Your task to perform on an android device: Open Reddit.com Image 0: 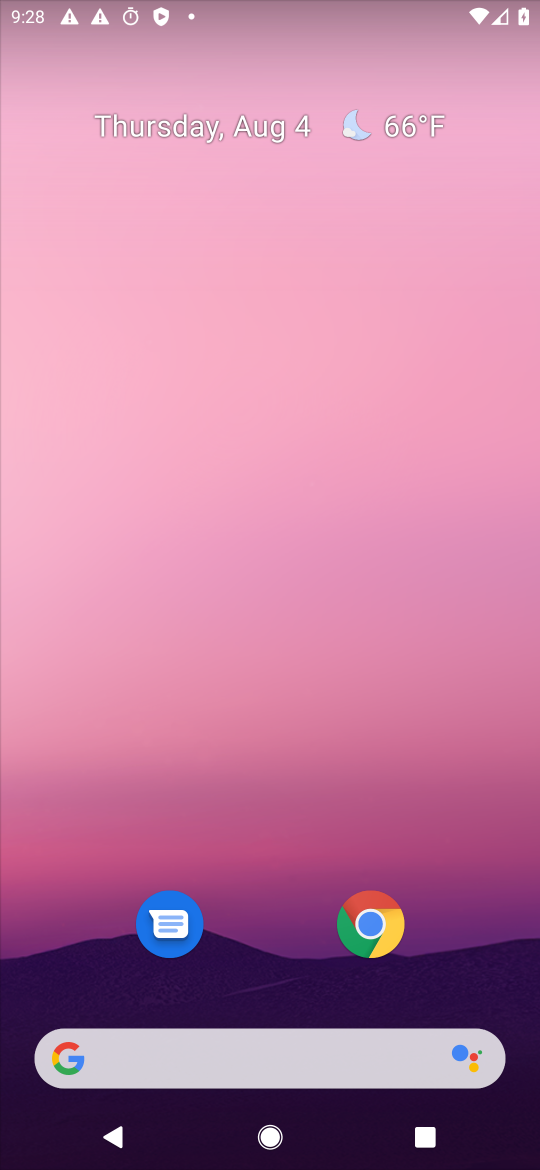
Step 0: click (359, 190)
Your task to perform on an android device: Open Reddit.com Image 1: 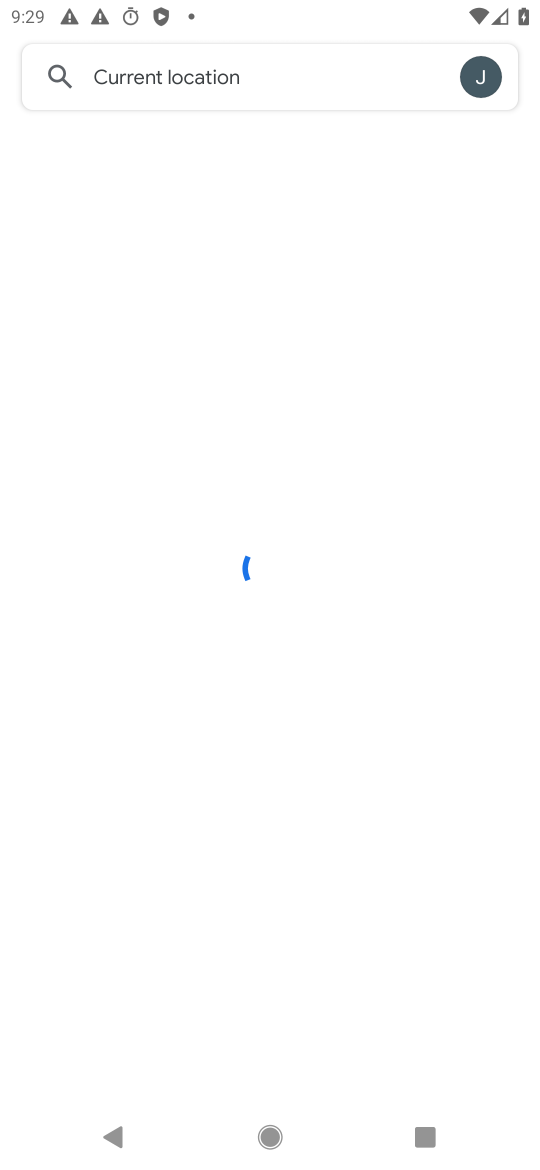
Step 1: press home button
Your task to perform on an android device: Open Reddit.com Image 2: 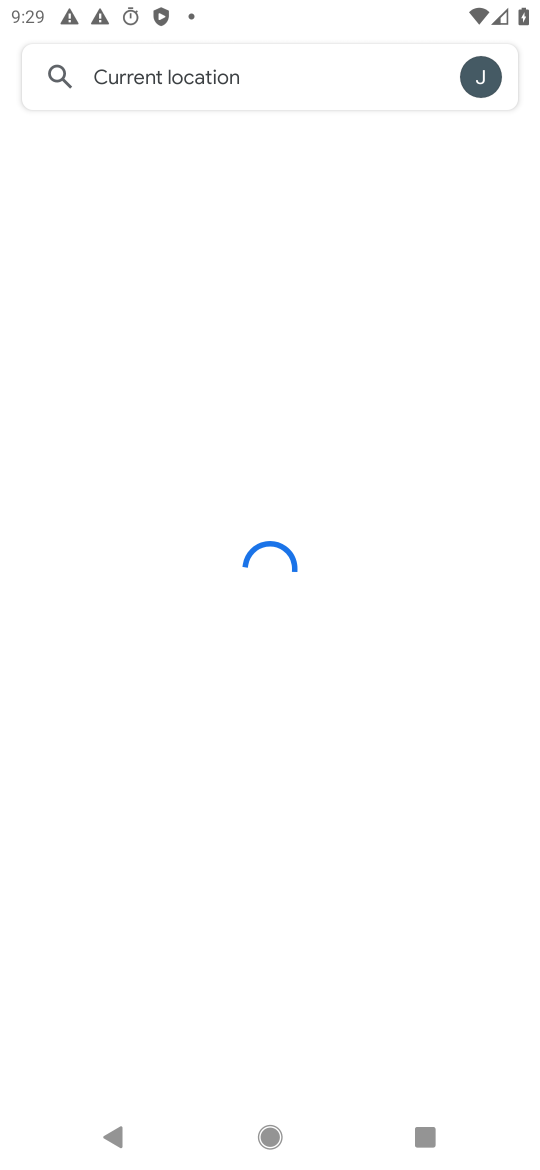
Step 2: click (254, 322)
Your task to perform on an android device: Open Reddit.com Image 3: 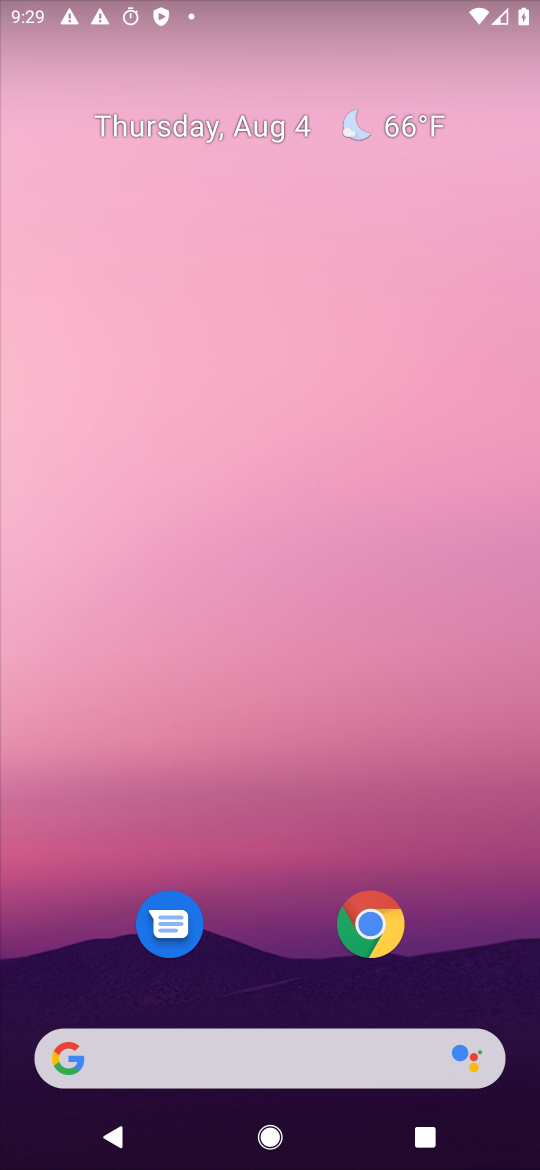
Step 3: drag from (243, 994) to (321, 248)
Your task to perform on an android device: Open Reddit.com Image 4: 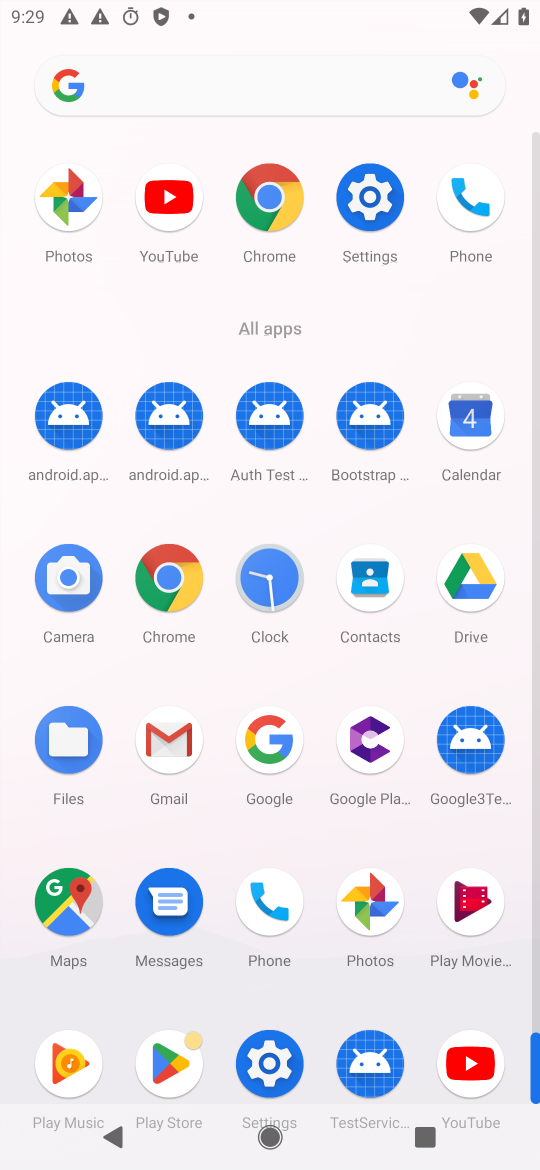
Step 4: click (228, 77)
Your task to perform on an android device: Open Reddit.com Image 5: 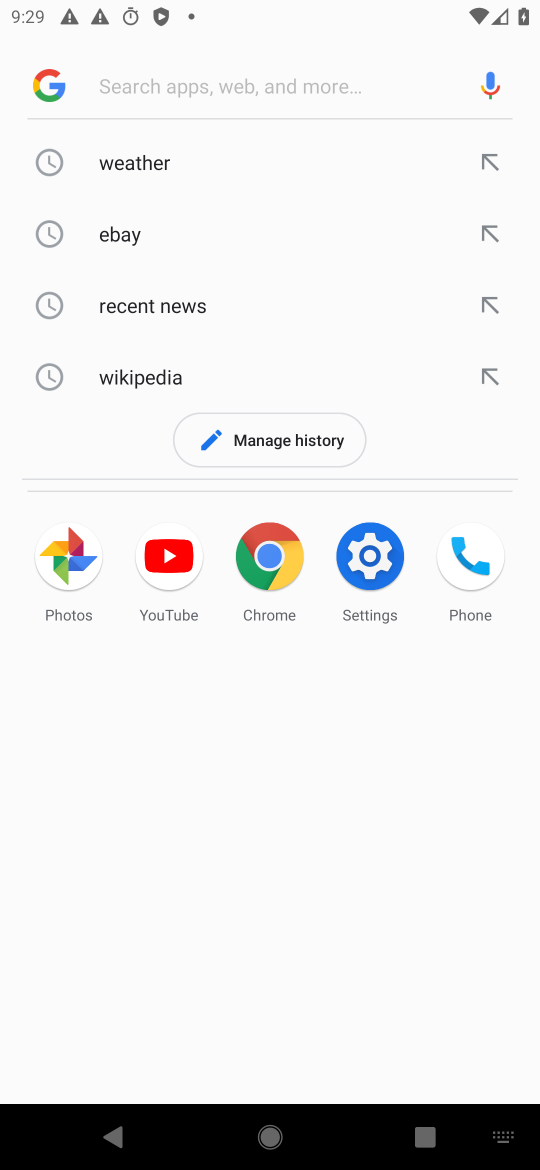
Step 5: type "Reddit.com"
Your task to perform on an android device: Open Reddit.com Image 6: 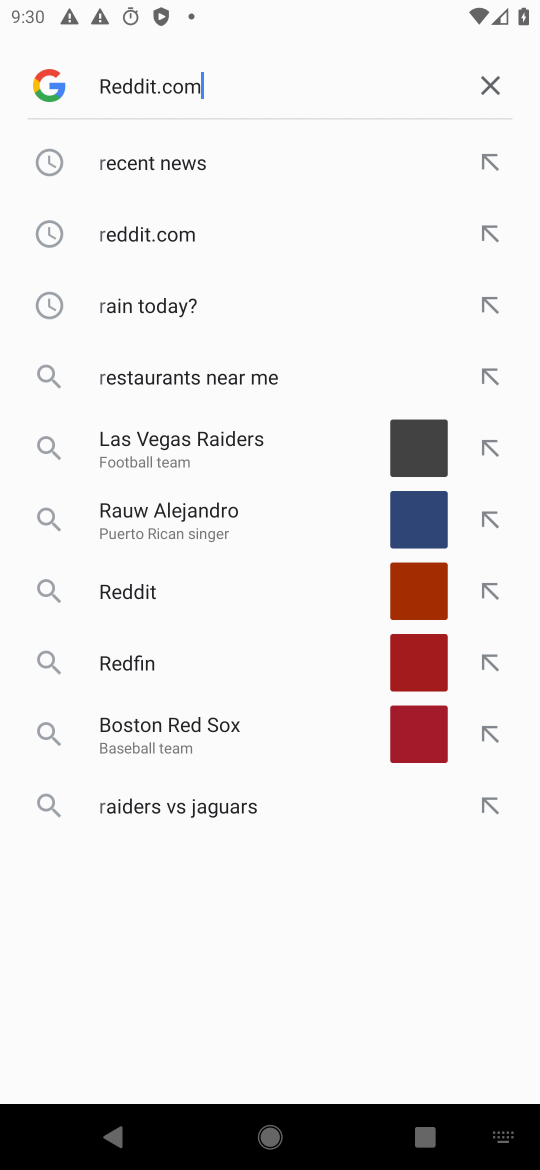
Step 6: type ""
Your task to perform on an android device: Open Reddit.com Image 7: 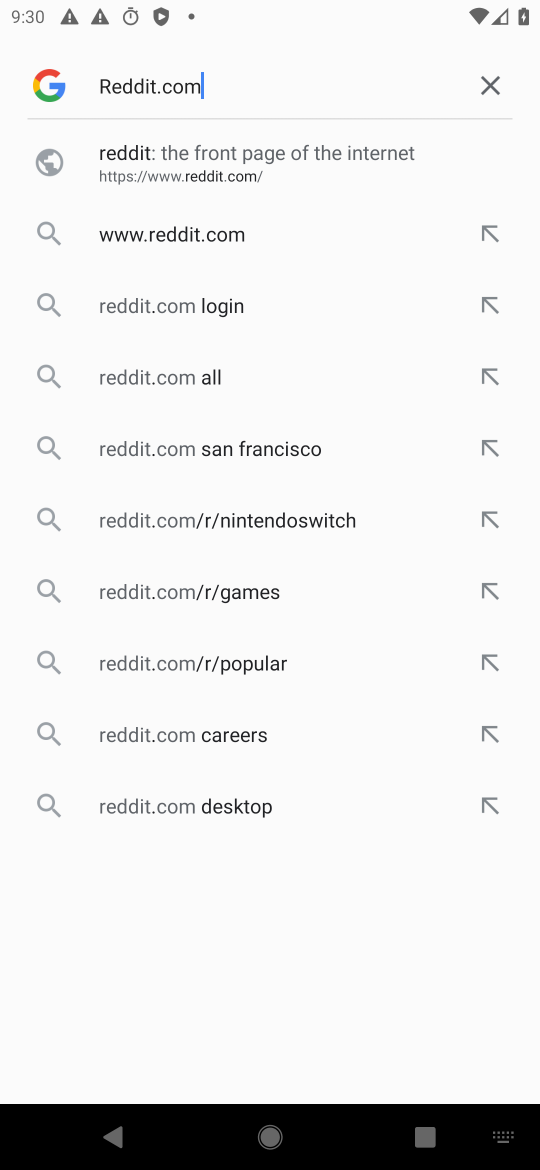
Step 7: click (122, 165)
Your task to perform on an android device: Open Reddit.com Image 8: 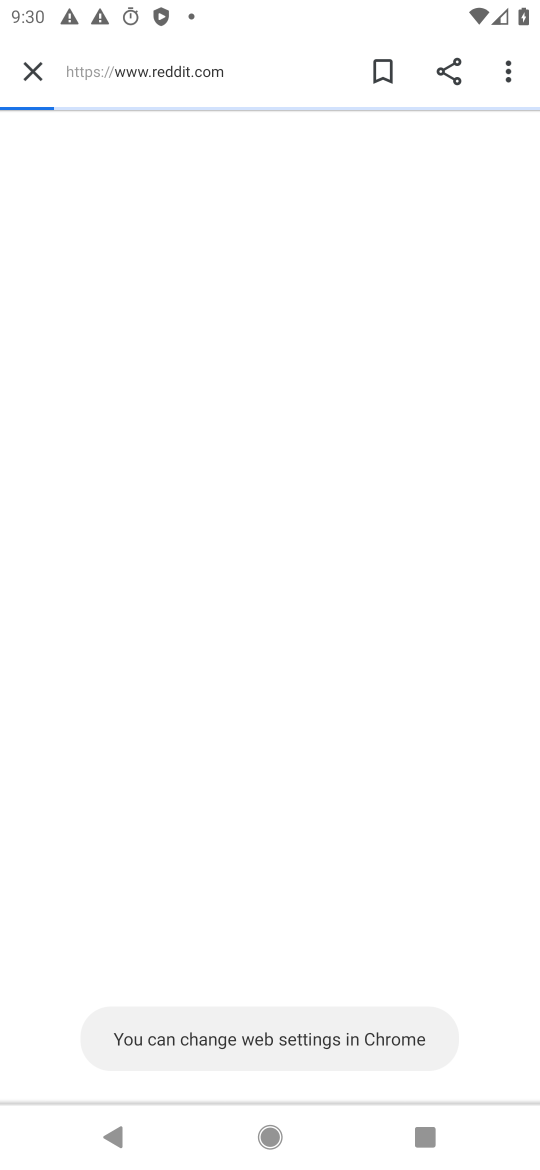
Step 8: task complete